Your task to perform on an android device: turn on javascript in the chrome app Image 0: 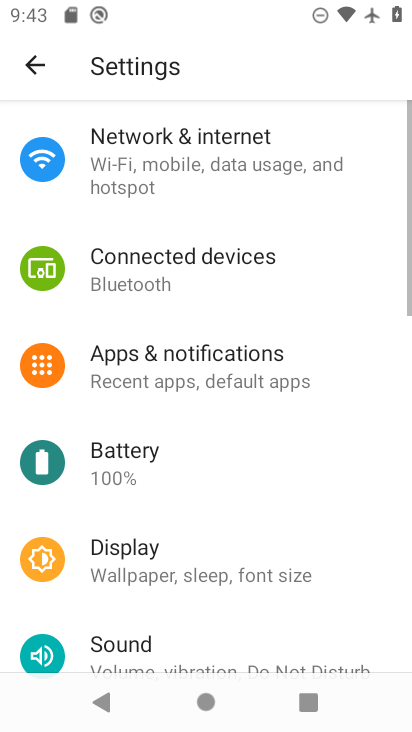
Step 0: press home button
Your task to perform on an android device: turn on javascript in the chrome app Image 1: 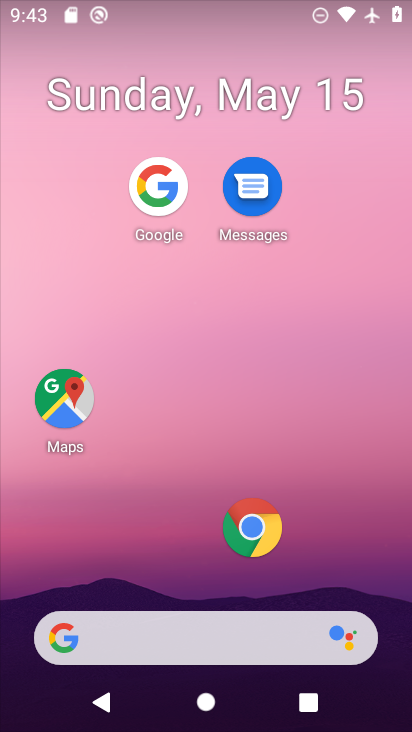
Step 1: drag from (139, 649) to (283, 226)
Your task to perform on an android device: turn on javascript in the chrome app Image 2: 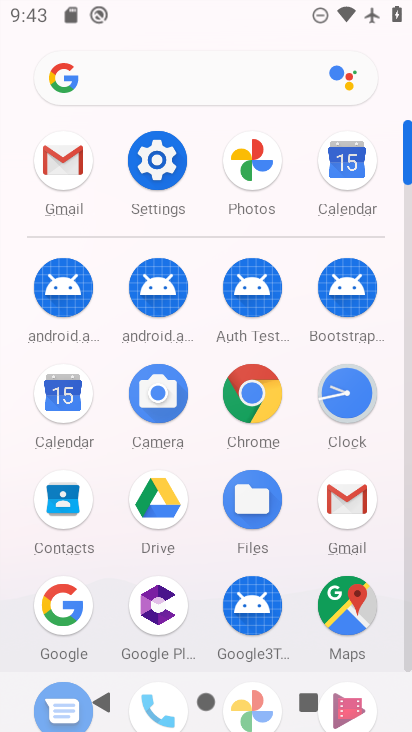
Step 2: click (247, 406)
Your task to perform on an android device: turn on javascript in the chrome app Image 3: 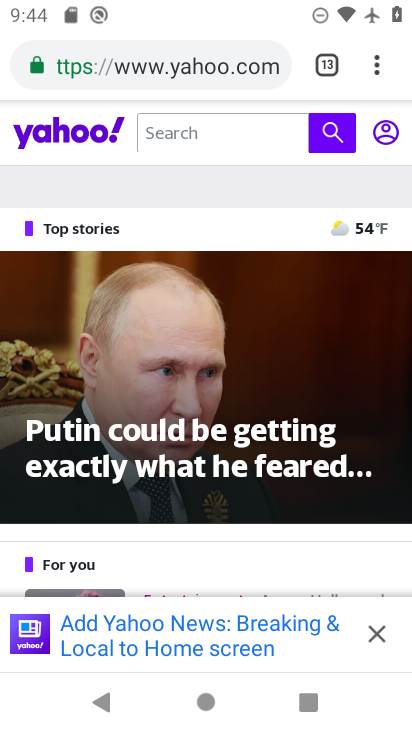
Step 3: drag from (374, 69) to (208, 587)
Your task to perform on an android device: turn on javascript in the chrome app Image 4: 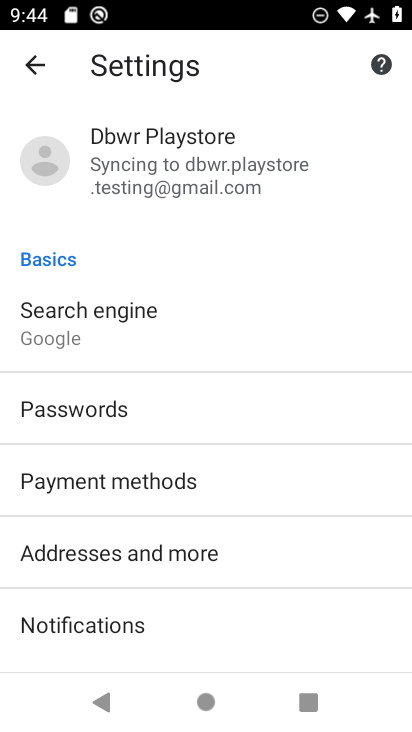
Step 4: drag from (170, 626) to (301, 189)
Your task to perform on an android device: turn on javascript in the chrome app Image 5: 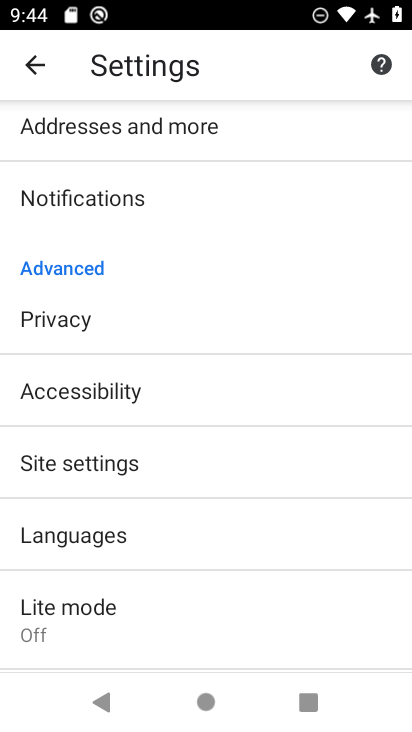
Step 5: click (105, 481)
Your task to perform on an android device: turn on javascript in the chrome app Image 6: 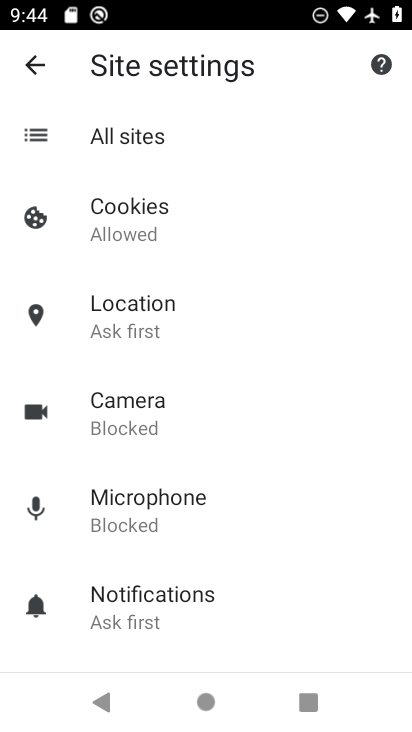
Step 6: drag from (229, 561) to (300, 197)
Your task to perform on an android device: turn on javascript in the chrome app Image 7: 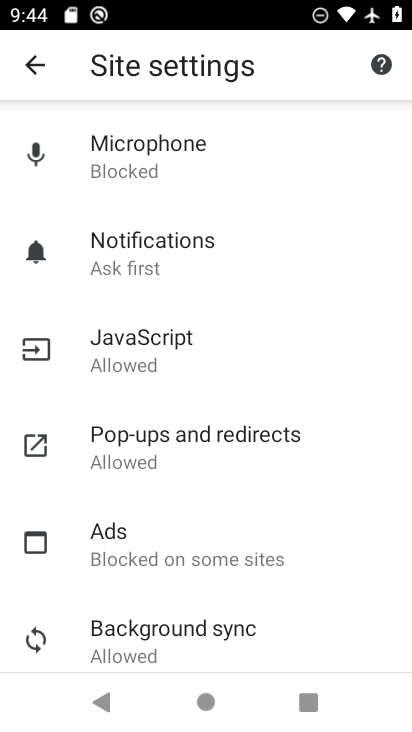
Step 7: click (123, 348)
Your task to perform on an android device: turn on javascript in the chrome app Image 8: 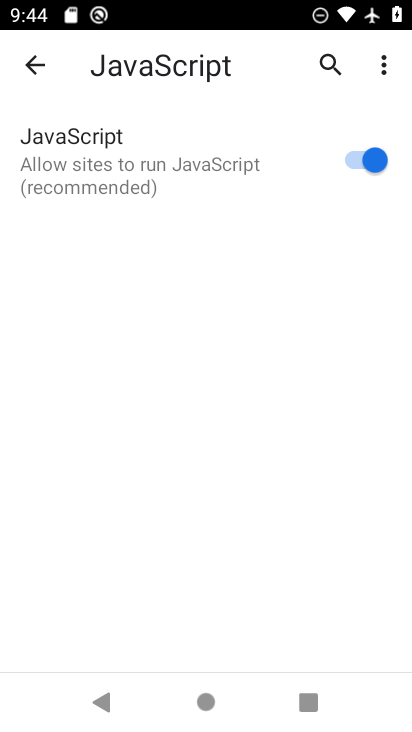
Step 8: task complete